Your task to perform on an android device: Is it going to rain today? Image 0: 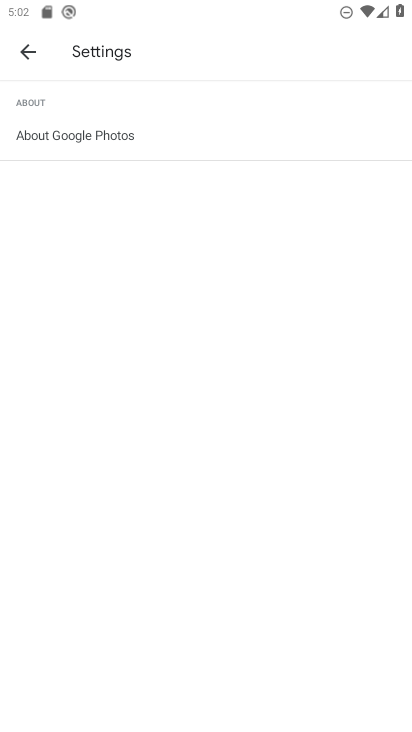
Step 0: drag from (200, 637) to (228, 401)
Your task to perform on an android device: Is it going to rain today? Image 1: 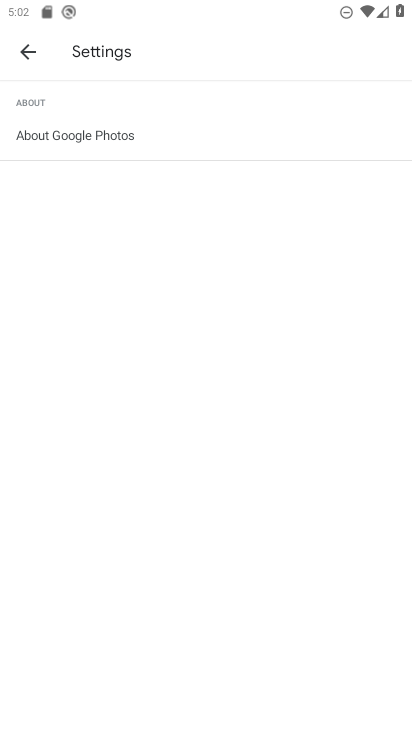
Step 1: press home button
Your task to perform on an android device: Is it going to rain today? Image 2: 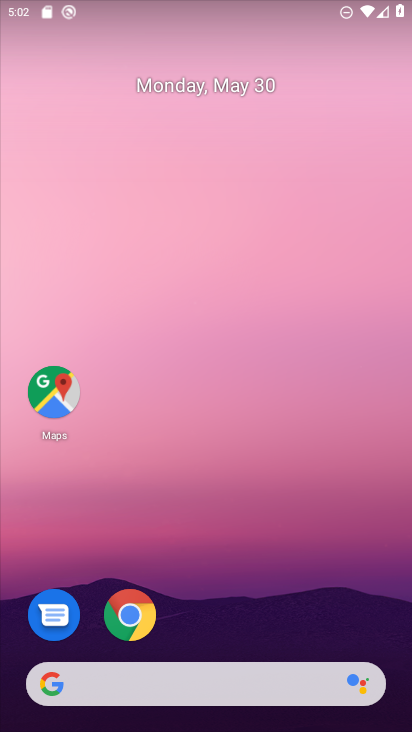
Step 2: click (232, 690)
Your task to perform on an android device: Is it going to rain today? Image 3: 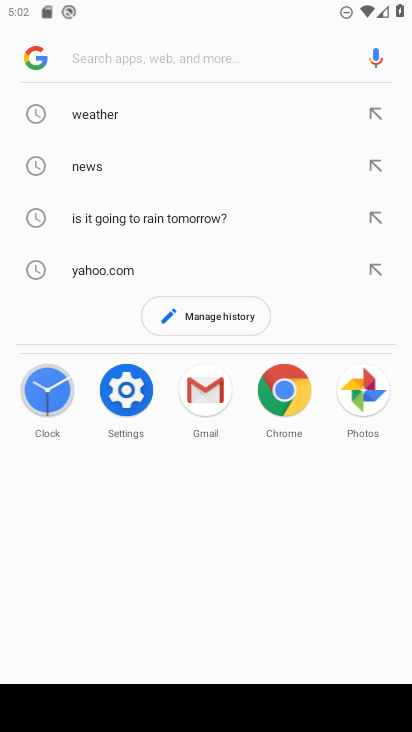
Step 3: click (138, 126)
Your task to perform on an android device: Is it going to rain today? Image 4: 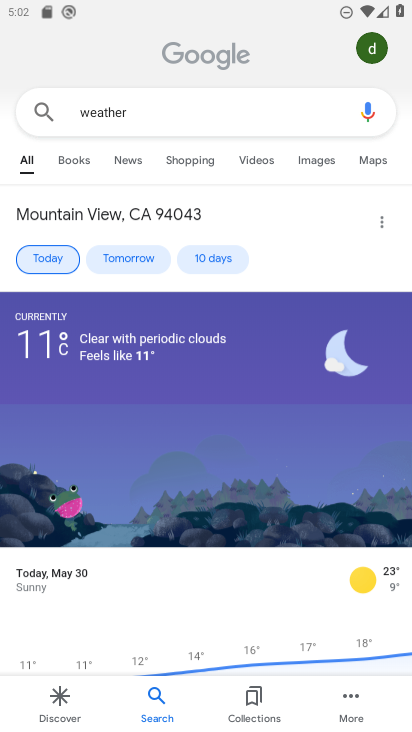
Step 4: task complete